Your task to perform on an android device: Open sound settings Image 0: 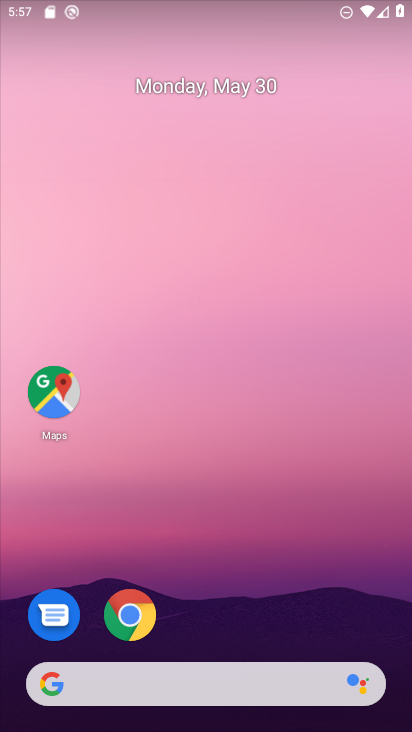
Step 0: drag from (184, 622) to (188, 3)
Your task to perform on an android device: Open sound settings Image 1: 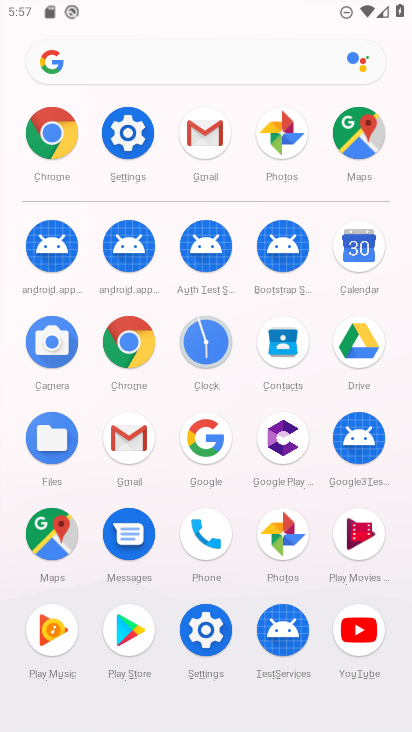
Step 1: click (145, 136)
Your task to perform on an android device: Open sound settings Image 2: 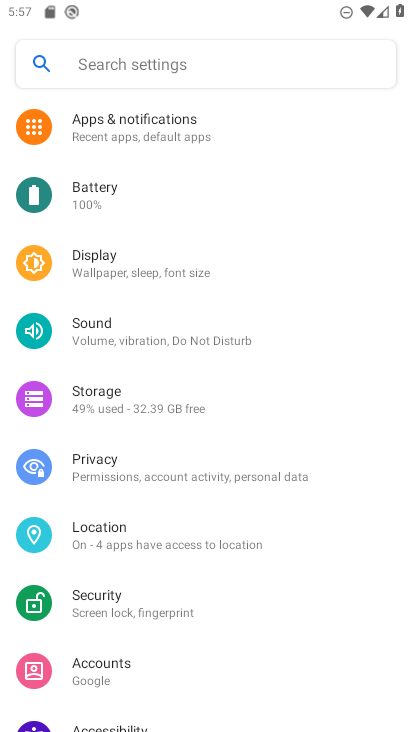
Step 2: click (103, 342)
Your task to perform on an android device: Open sound settings Image 3: 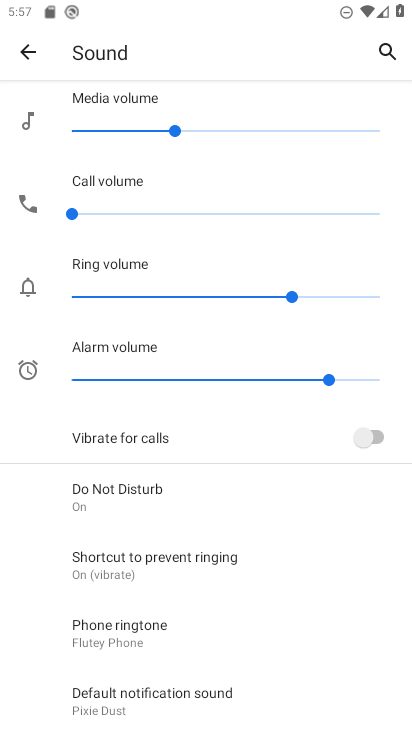
Step 3: task complete